Your task to perform on an android device: open app "Chime – Mobile Banking" (install if not already installed) Image 0: 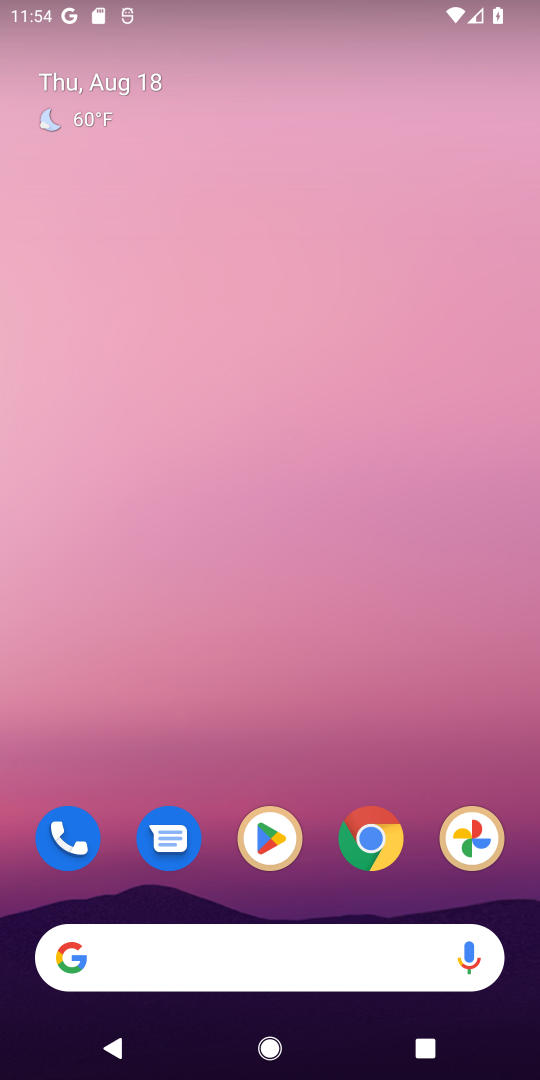
Step 0: click (289, 830)
Your task to perform on an android device: open app "Chime – Mobile Banking" (install if not already installed) Image 1: 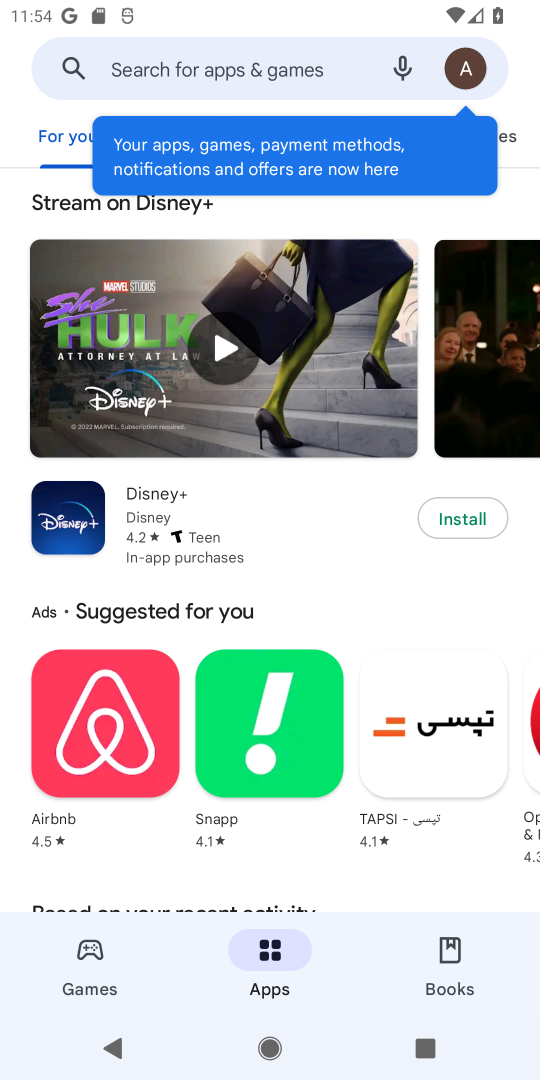
Step 1: click (249, 69)
Your task to perform on an android device: open app "Chime – Mobile Banking" (install if not already installed) Image 2: 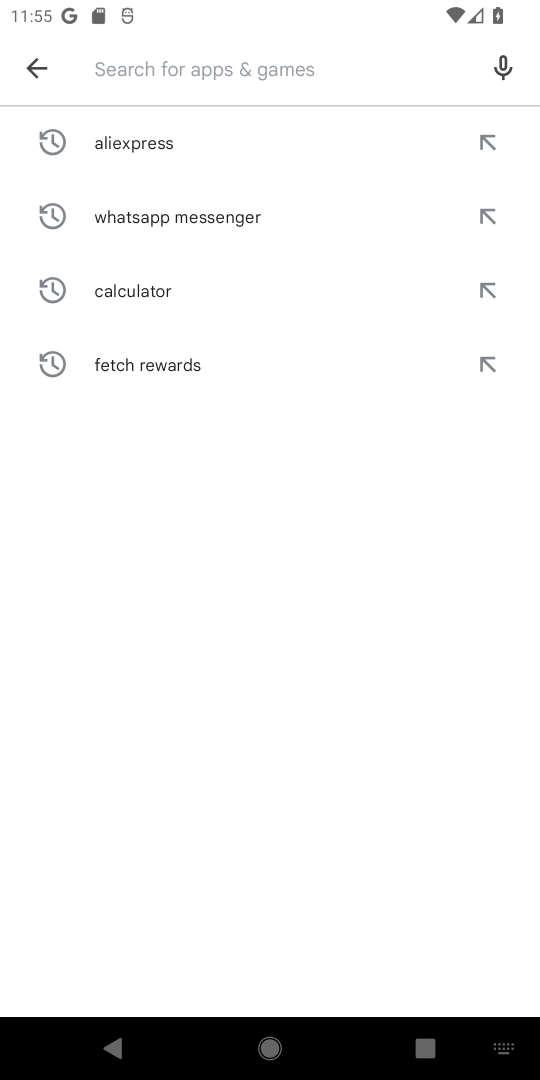
Step 2: type "Chime"
Your task to perform on an android device: open app "Chime – Mobile Banking" (install if not already installed) Image 3: 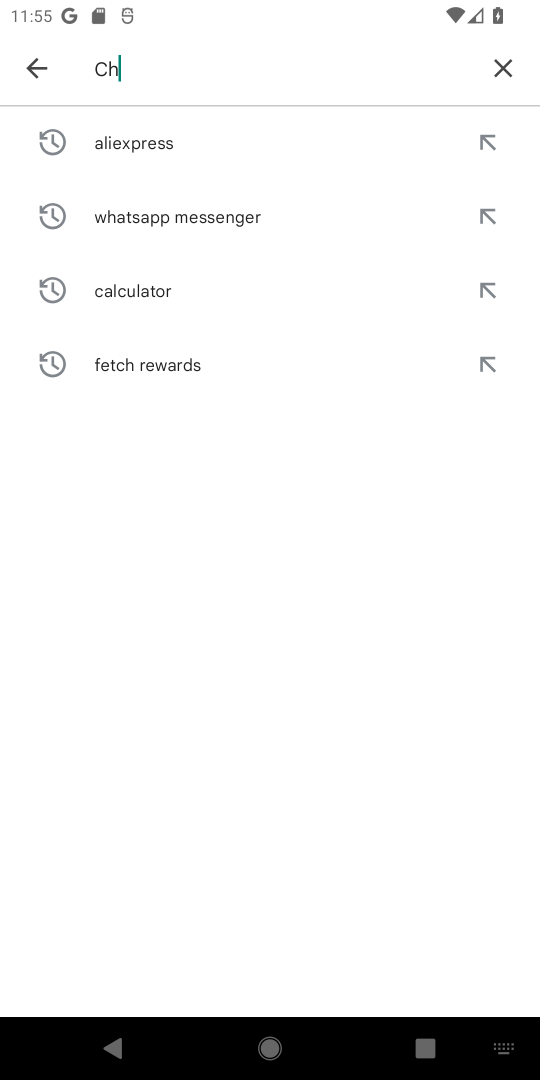
Step 3: type ""
Your task to perform on an android device: open app "Chime – Mobile Banking" (install if not already installed) Image 4: 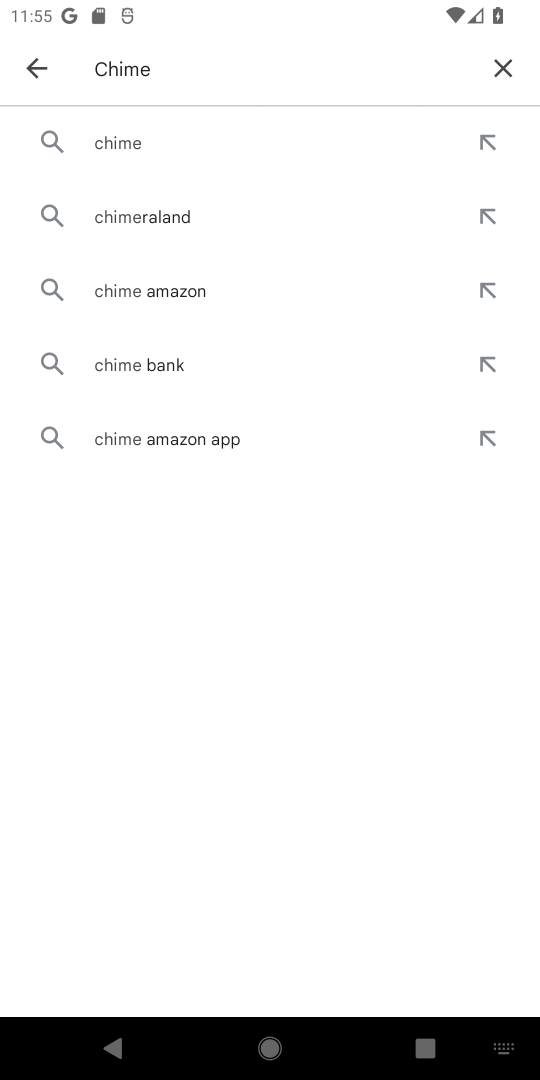
Step 4: click (176, 141)
Your task to perform on an android device: open app "Chime – Mobile Banking" (install if not already installed) Image 5: 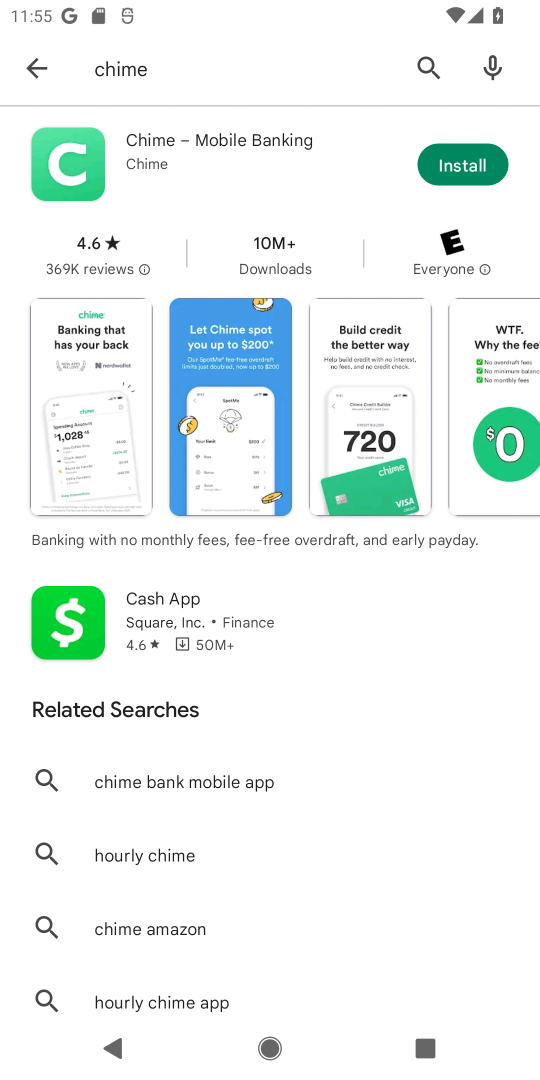
Step 5: click (462, 165)
Your task to perform on an android device: open app "Chime – Mobile Banking" (install if not already installed) Image 6: 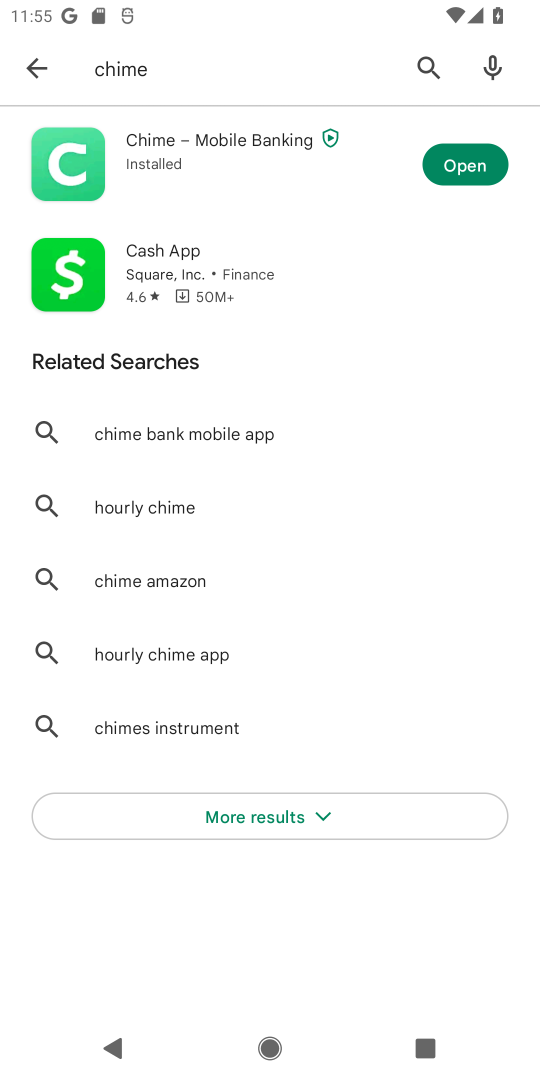
Step 6: click (456, 171)
Your task to perform on an android device: open app "Chime – Mobile Banking" (install if not already installed) Image 7: 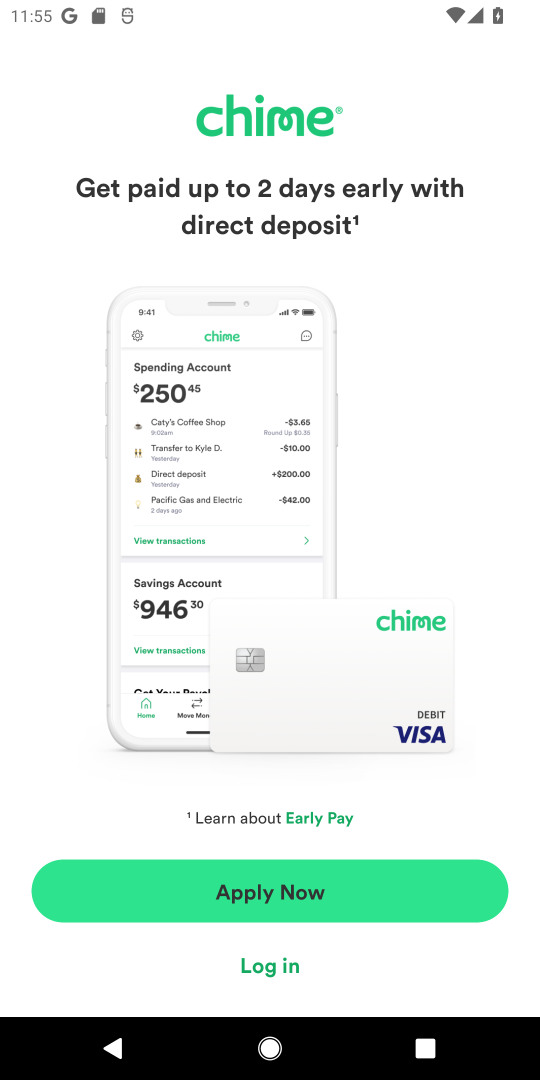
Step 7: task complete